Your task to perform on an android device: see creations saved in the google photos Image 0: 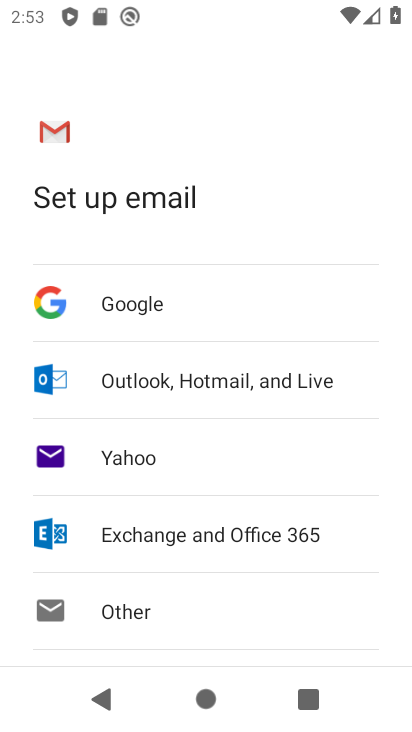
Step 0: press home button
Your task to perform on an android device: see creations saved in the google photos Image 1: 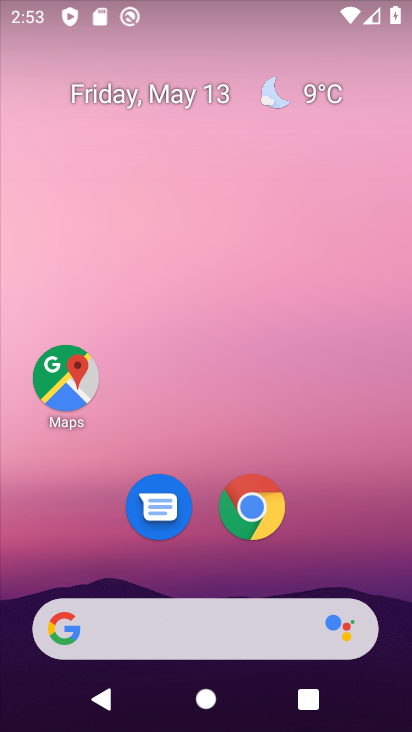
Step 1: drag from (252, 703) to (213, 113)
Your task to perform on an android device: see creations saved in the google photos Image 2: 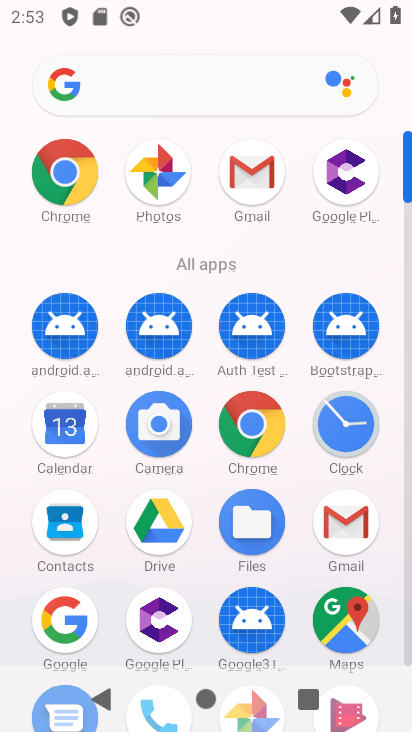
Step 2: drag from (282, 633) to (276, 190)
Your task to perform on an android device: see creations saved in the google photos Image 3: 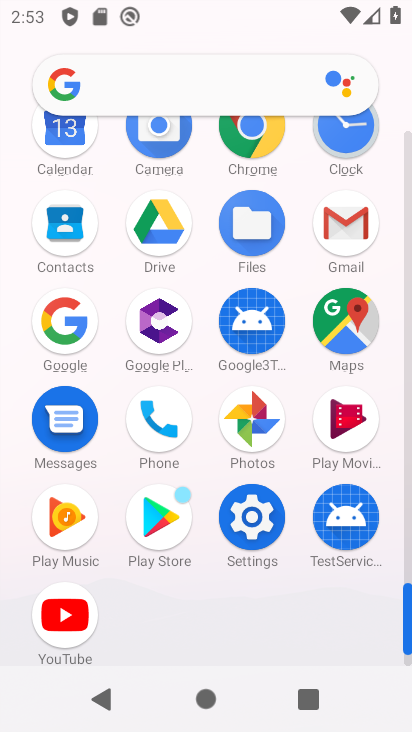
Step 3: click (247, 428)
Your task to perform on an android device: see creations saved in the google photos Image 4: 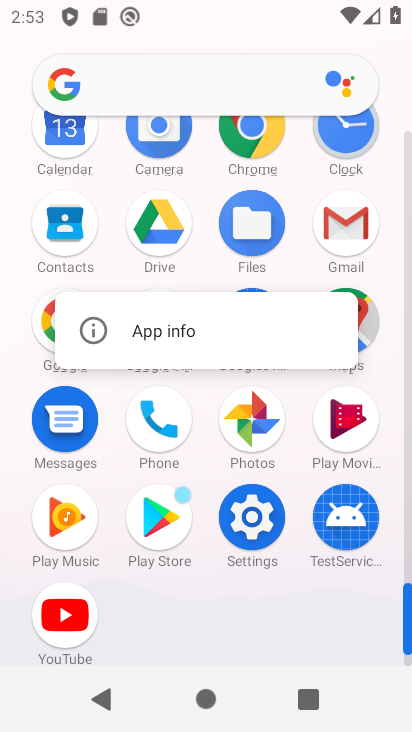
Step 4: click (252, 430)
Your task to perform on an android device: see creations saved in the google photos Image 5: 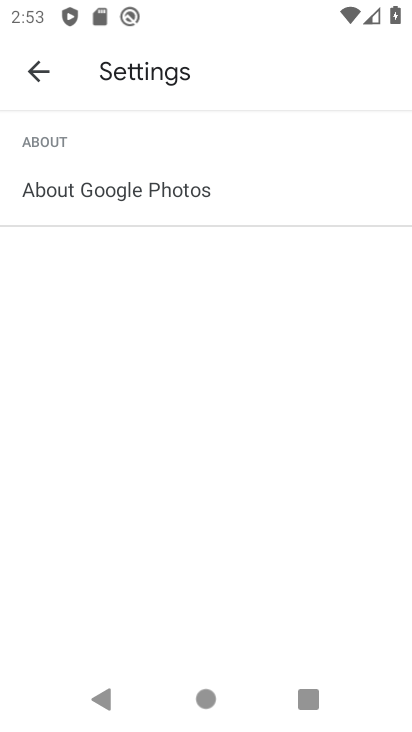
Step 5: click (47, 79)
Your task to perform on an android device: see creations saved in the google photos Image 6: 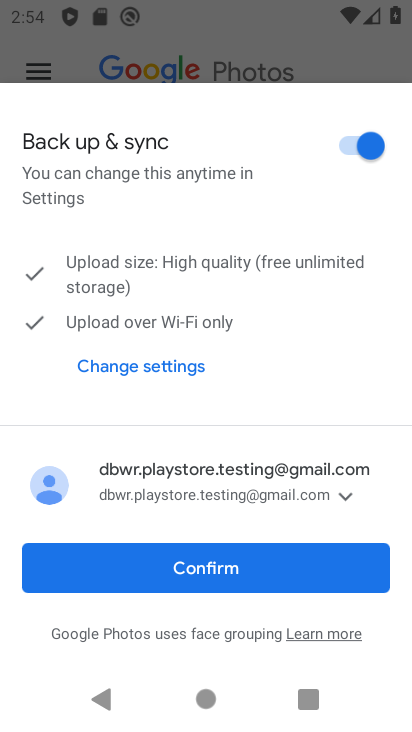
Step 6: click (254, 58)
Your task to perform on an android device: see creations saved in the google photos Image 7: 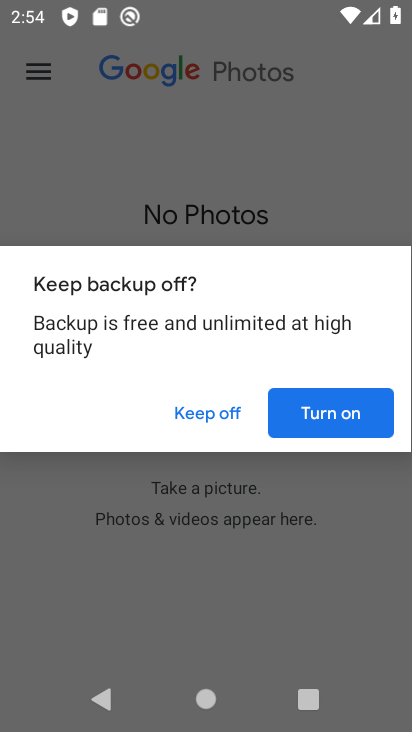
Step 7: click (202, 415)
Your task to perform on an android device: see creations saved in the google photos Image 8: 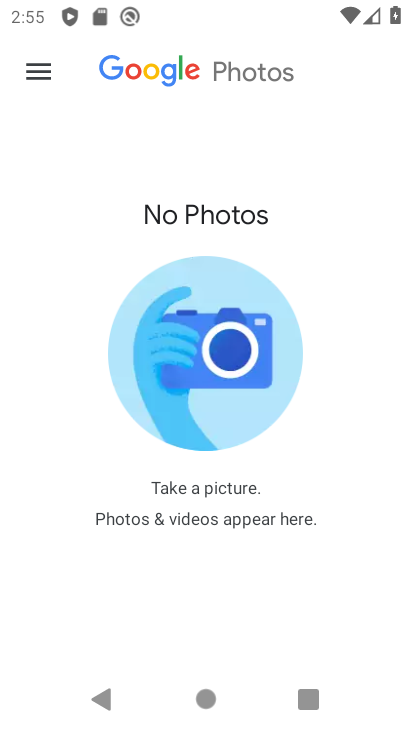
Step 8: click (177, 69)
Your task to perform on an android device: see creations saved in the google photos Image 9: 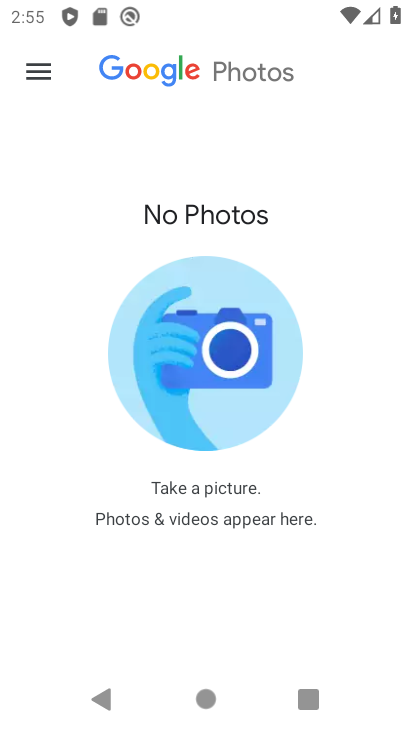
Step 9: click (37, 66)
Your task to perform on an android device: see creations saved in the google photos Image 10: 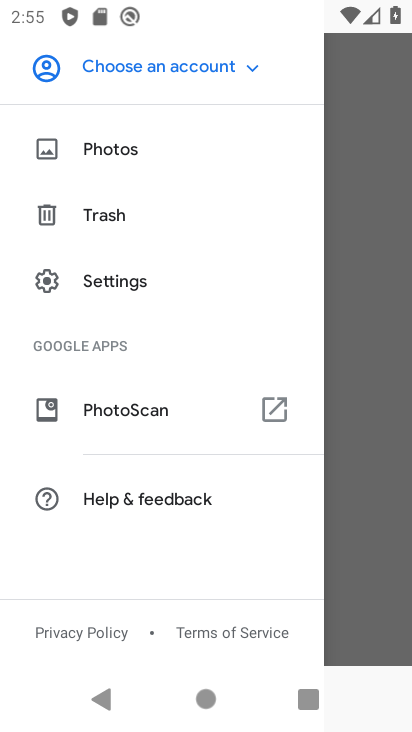
Step 10: click (170, 152)
Your task to perform on an android device: see creations saved in the google photos Image 11: 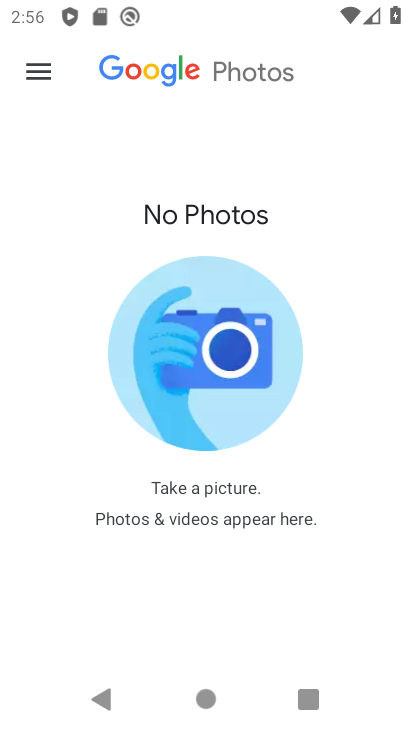
Step 11: task complete